Your task to perform on an android device: Open Google Chrome and open the bookmarks view Image 0: 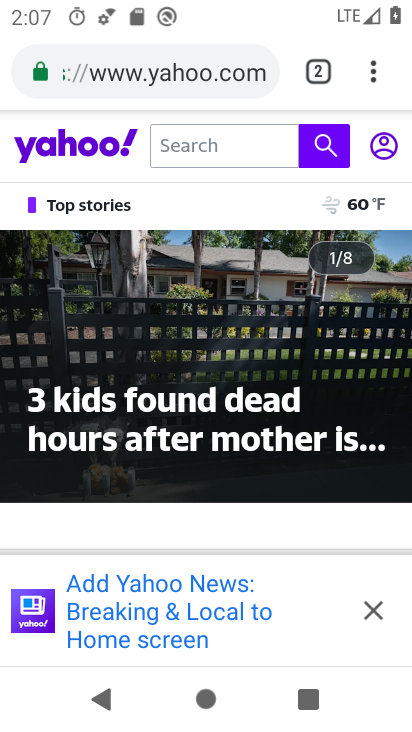
Step 0: press home button
Your task to perform on an android device: Open Google Chrome and open the bookmarks view Image 1: 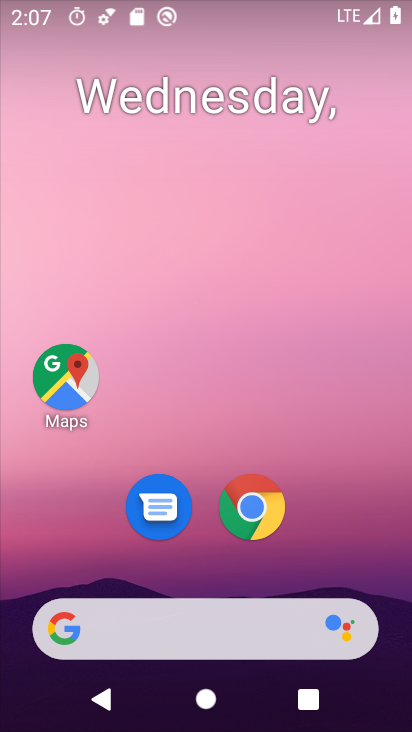
Step 1: drag from (349, 542) to (274, 40)
Your task to perform on an android device: Open Google Chrome and open the bookmarks view Image 2: 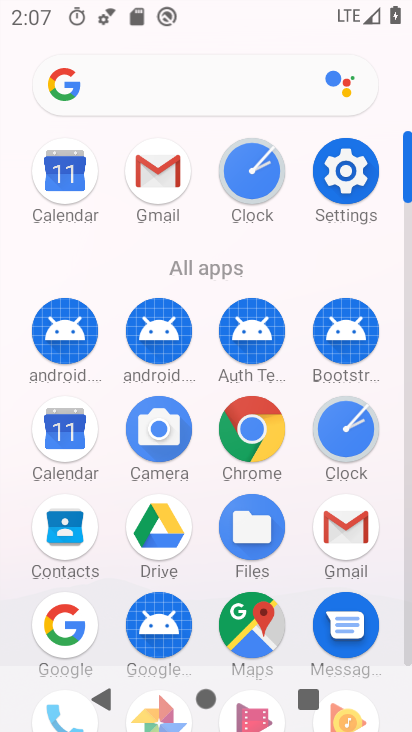
Step 2: click (227, 429)
Your task to perform on an android device: Open Google Chrome and open the bookmarks view Image 3: 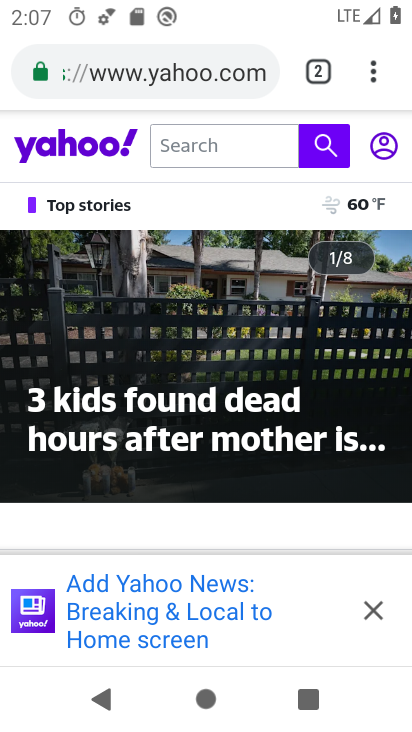
Step 3: click (381, 81)
Your task to perform on an android device: Open Google Chrome and open the bookmarks view Image 4: 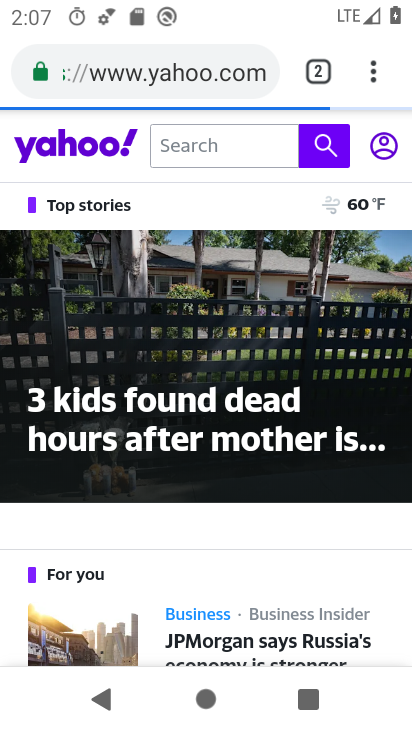
Step 4: click (381, 81)
Your task to perform on an android device: Open Google Chrome and open the bookmarks view Image 5: 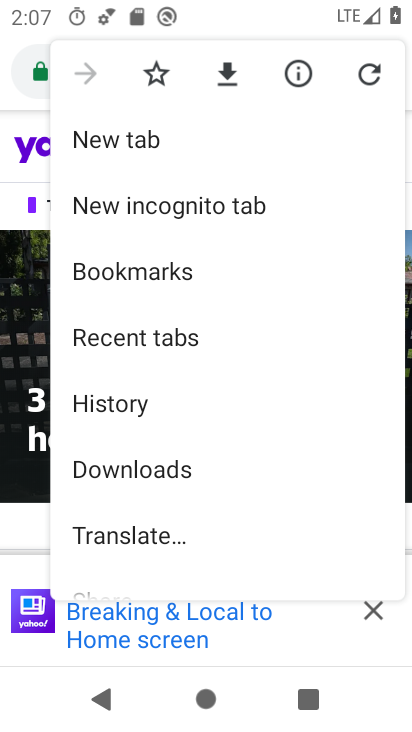
Step 5: click (178, 264)
Your task to perform on an android device: Open Google Chrome and open the bookmarks view Image 6: 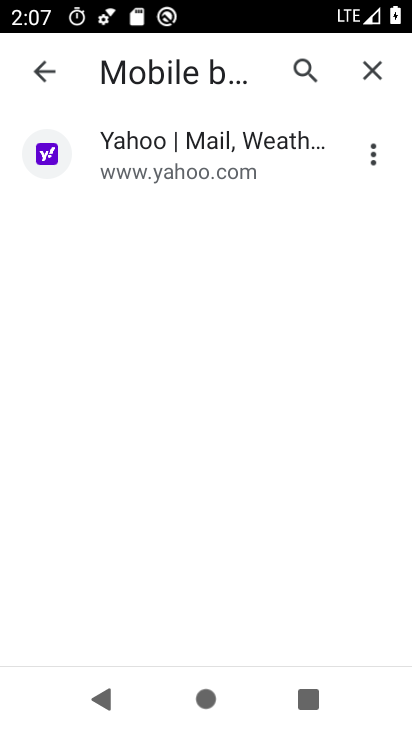
Step 6: task complete